Your task to perform on an android device: visit the assistant section in the google photos Image 0: 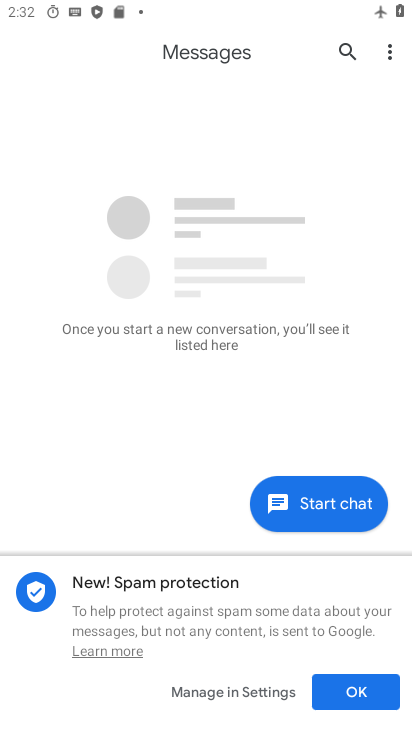
Step 0: press home button
Your task to perform on an android device: visit the assistant section in the google photos Image 1: 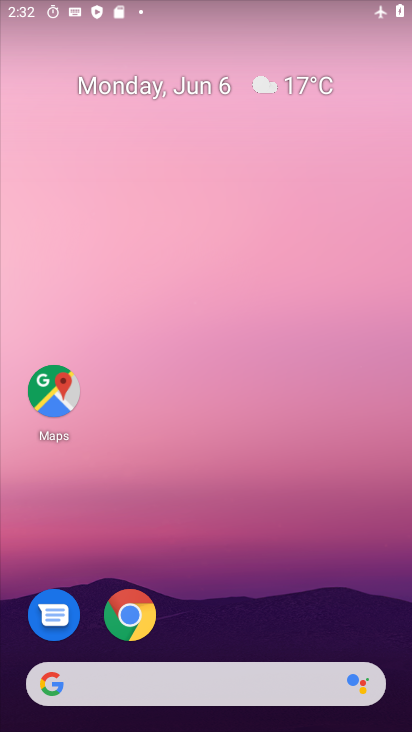
Step 1: drag from (213, 635) to (349, 106)
Your task to perform on an android device: visit the assistant section in the google photos Image 2: 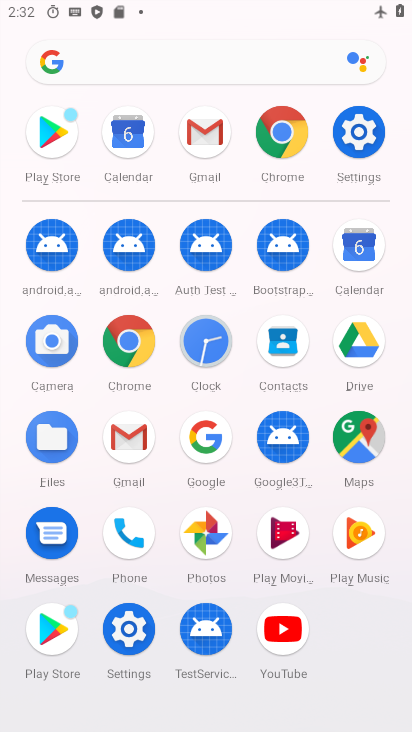
Step 2: click (206, 533)
Your task to perform on an android device: visit the assistant section in the google photos Image 3: 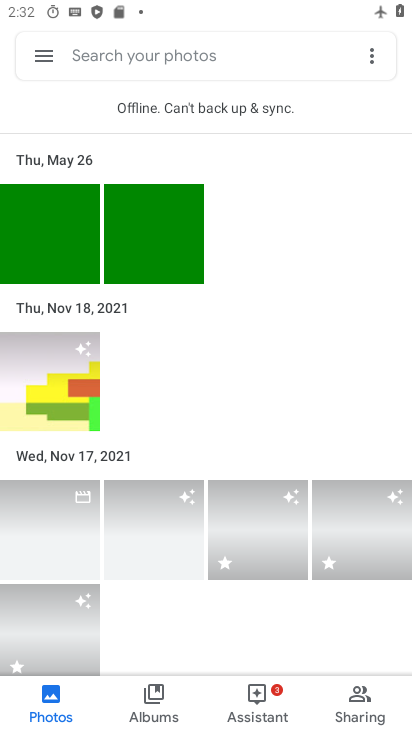
Step 3: click (255, 697)
Your task to perform on an android device: visit the assistant section in the google photos Image 4: 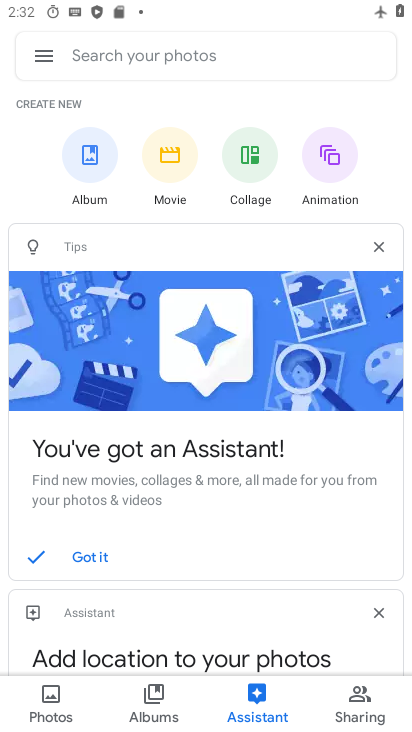
Step 4: task complete